Your task to perform on an android device: turn notification dots on Image 0: 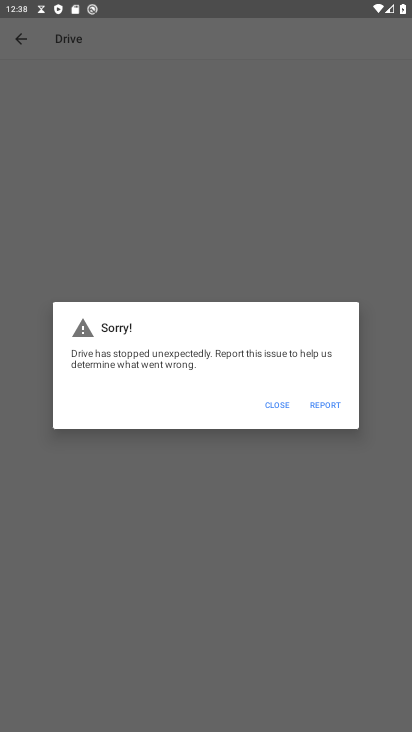
Step 0: press home button
Your task to perform on an android device: turn notification dots on Image 1: 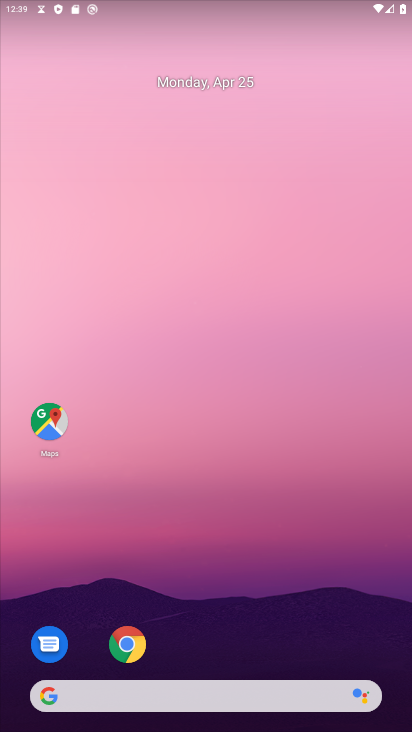
Step 1: drag from (267, 625) to (245, 24)
Your task to perform on an android device: turn notification dots on Image 2: 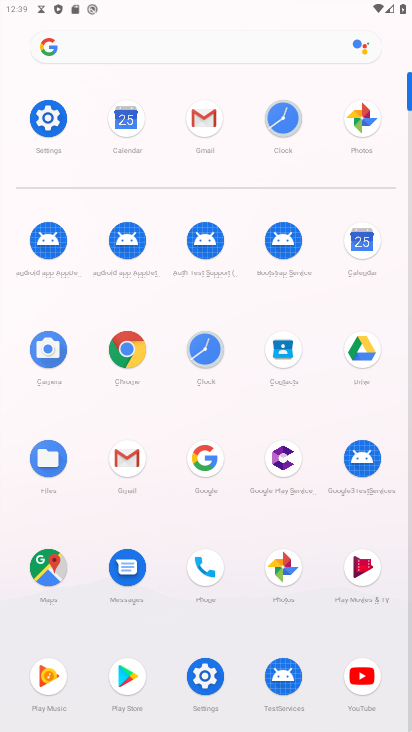
Step 2: click (49, 124)
Your task to perform on an android device: turn notification dots on Image 3: 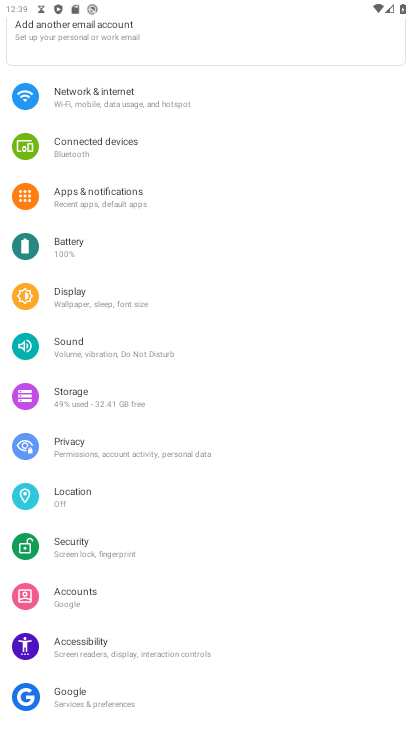
Step 3: click (96, 203)
Your task to perform on an android device: turn notification dots on Image 4: 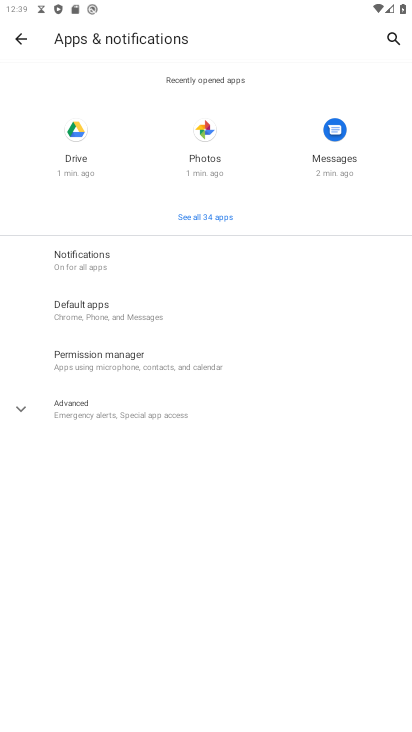
Step 4: click (64, 269)
Your task to perform on an android device: turn notification dots on Image 5: 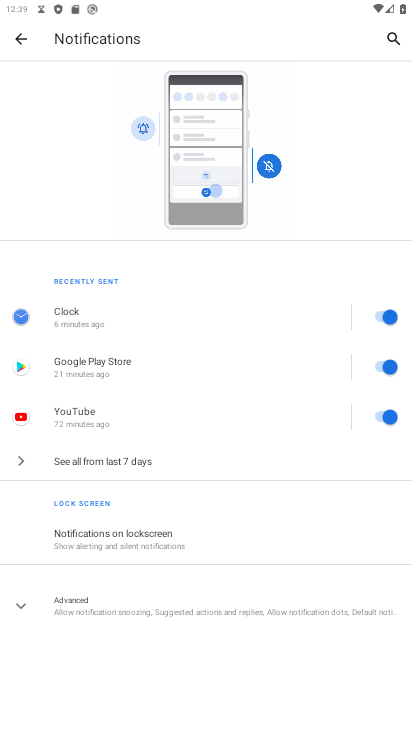
Step 5: click (22, 612)
Your task to perform on an android device: turn notification dots on Image 6: 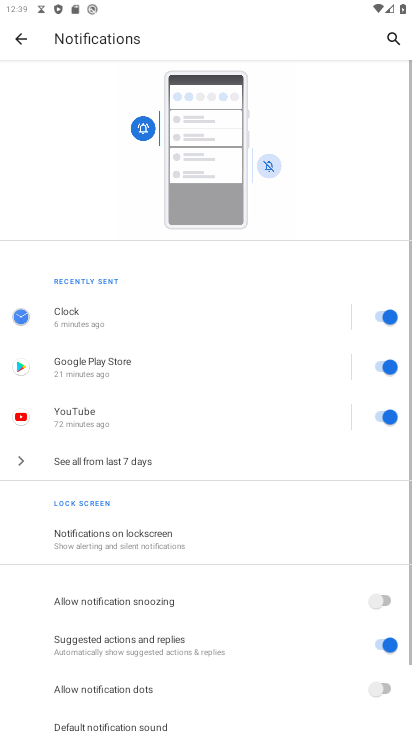
Step 6: drag from (178, 634) to (168, 285)
Your task to perform on an android device: turn notification dots on Image 7: 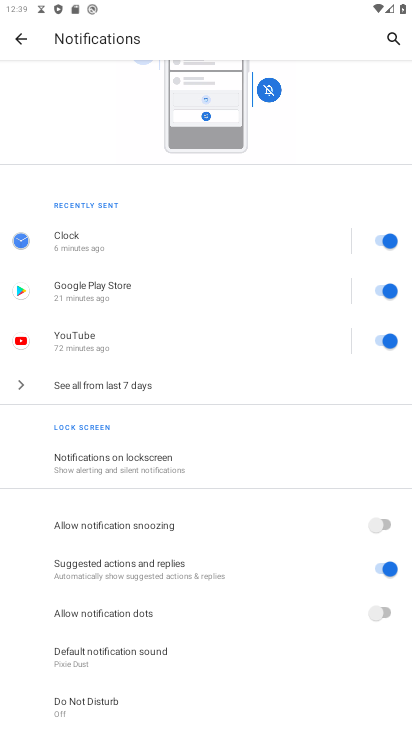
Step 7: click (382, 614)
Your task to perform on an android device: turn notification dots on Image 8: 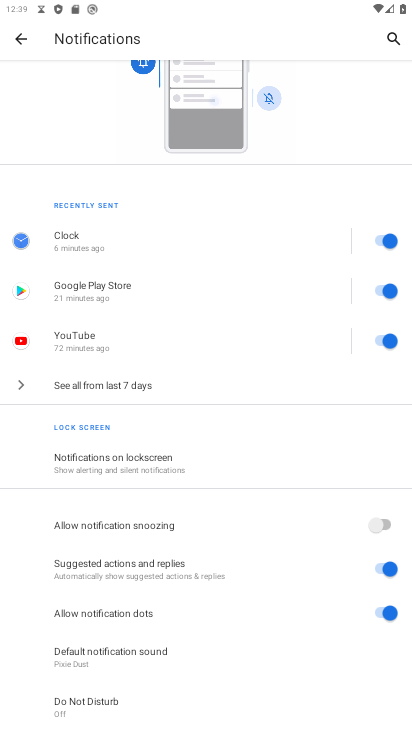
Step 8: task complete